Your task to perform on an android device: set default search engine in the chrome app Image 0: 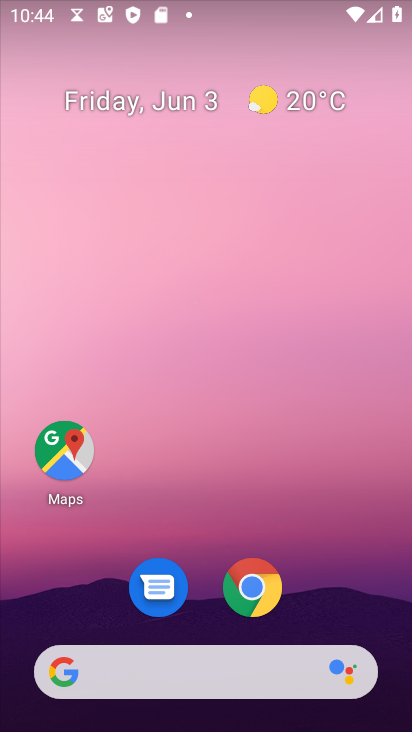
Step 0: click (263, 572)
Your task to perform on an android device: set default search engine in the chrome app Image 1: 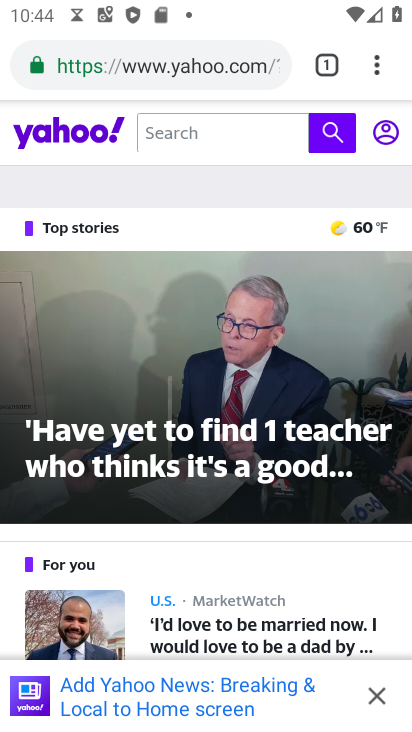
Step 1: click (373, 60)
Your task to perform on an android device: set default search engine in the chrome app Image 2: 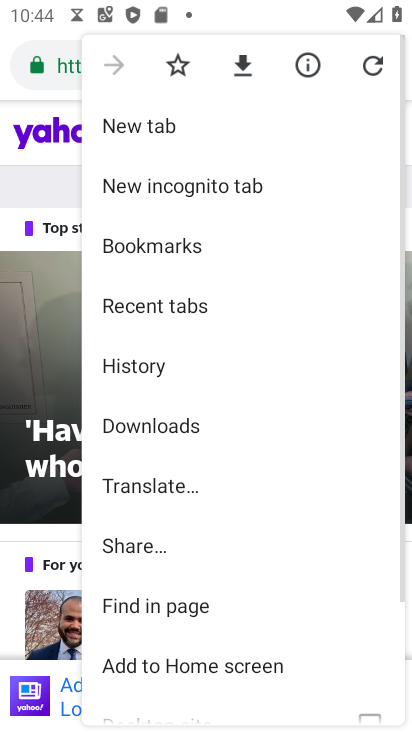
Step 2: drag from (209, 638) to (230, 162)
Your task to perform on an android device: set default search engine in the chrome app Image 3: 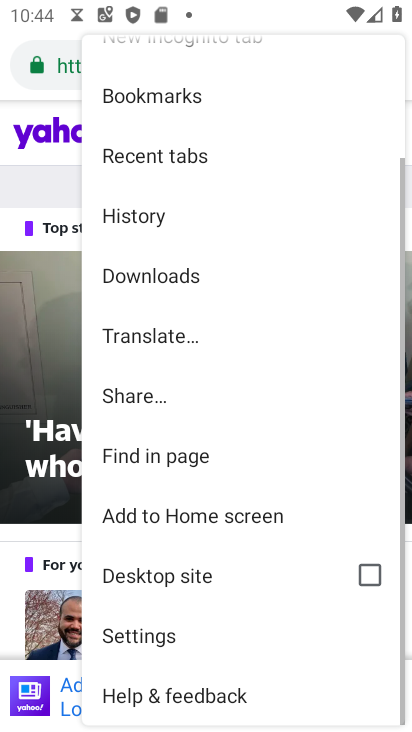
Step 3: click (180, 637)
Your task to perform on an android device: set default search engine in the chrome app Image 4: 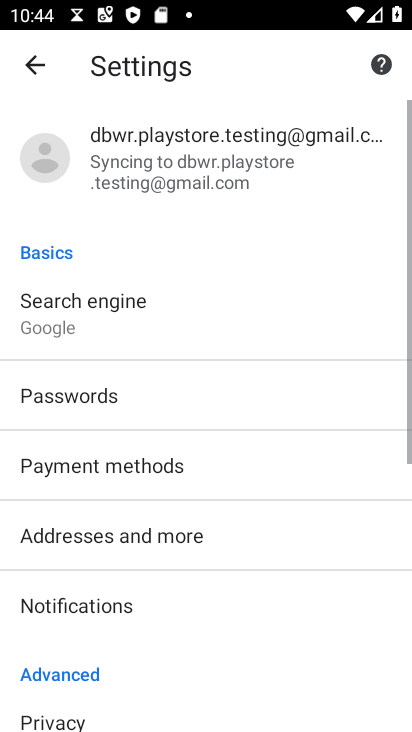
Step 4: click (161, 302)
Your task to perform on an android device: set default search engine in the chrome app Image 5: 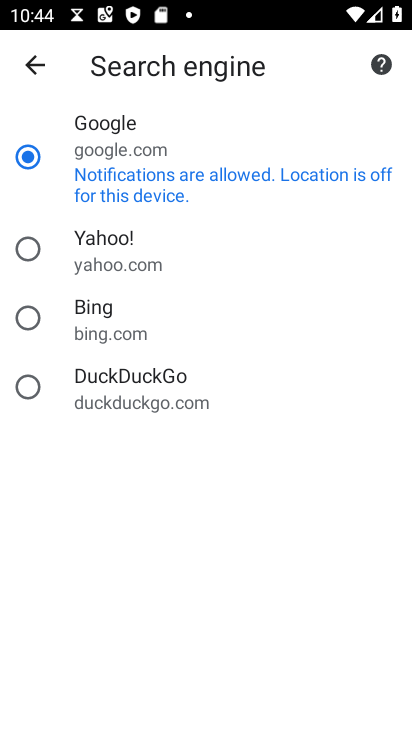
Step 5: click (148, 122)
Your task to perform on an android device: set default search engine in the chrome app Image 6: 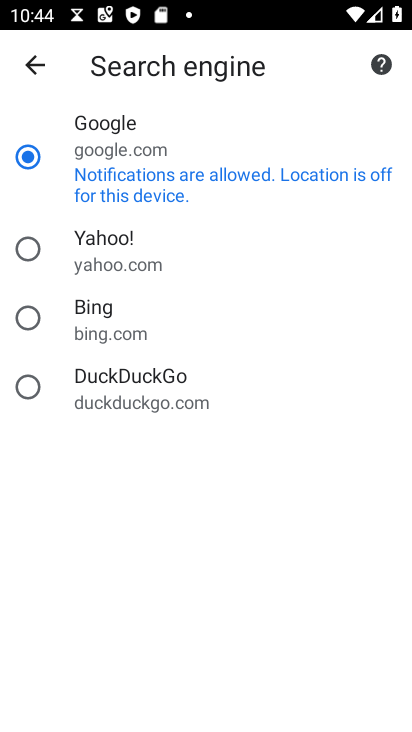
Step 6: task complete